Your task to perform on an android device: turn off notifications settings in the gmail app Image 0: 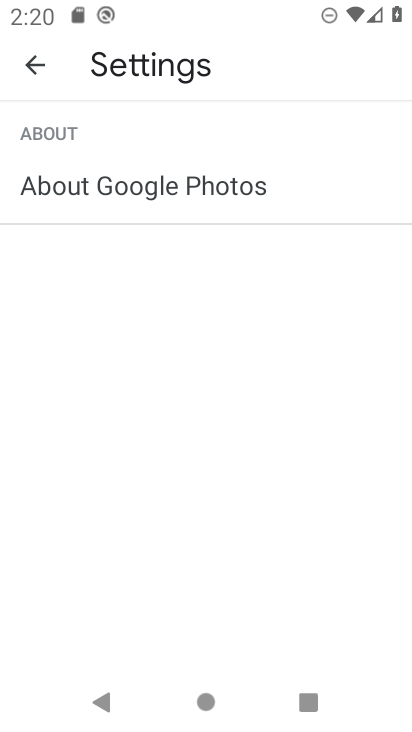
Step 0: press back button
Your task to perform on an android device: turn off notifications settings in the gmail app Image 1: 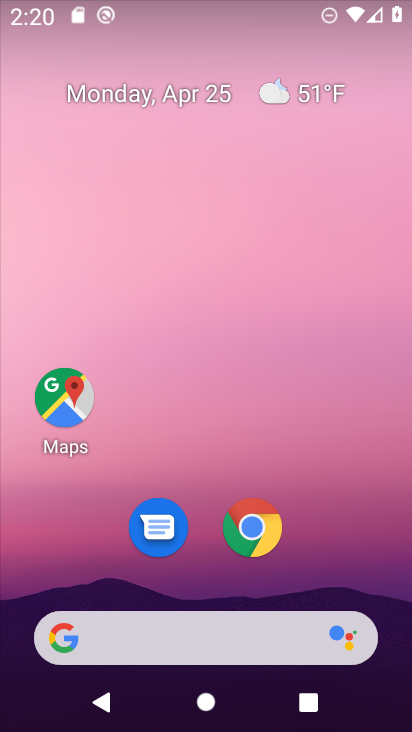
Step 1: drag from (323, 478) to (171, 2)
Your task to perform on an android device: turn off notifications settings in the gmail app Image 2: 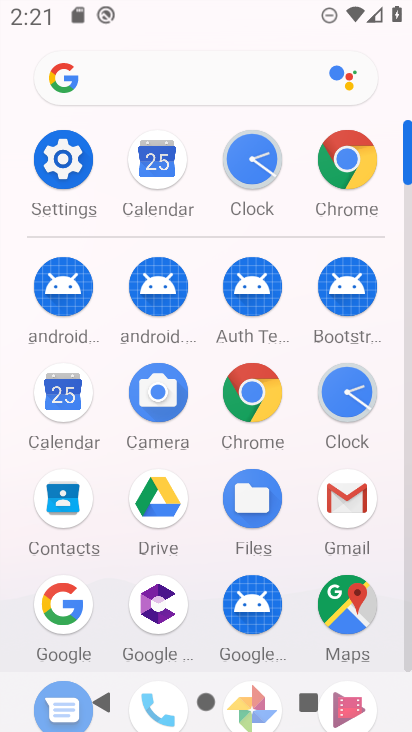
Step 2: drag from (13, 533) to (15, 296)
Your task to perform on an android device: turn off notifications settings in the gmail app Image 3: 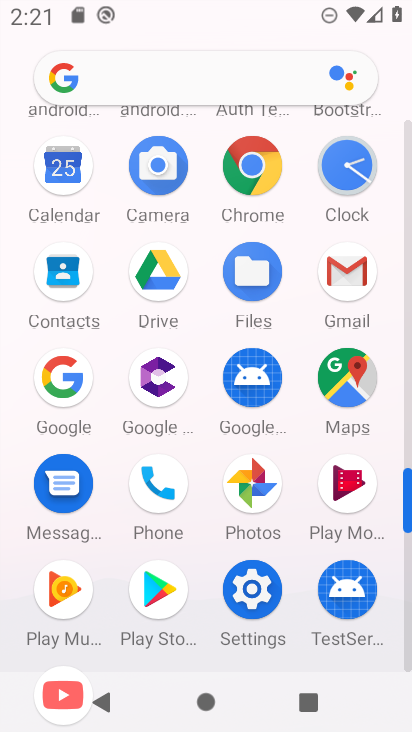
Step 3: click (348, 271)
Your task to perform on an android device: turn off notifications settings in the gmail app Image 4: 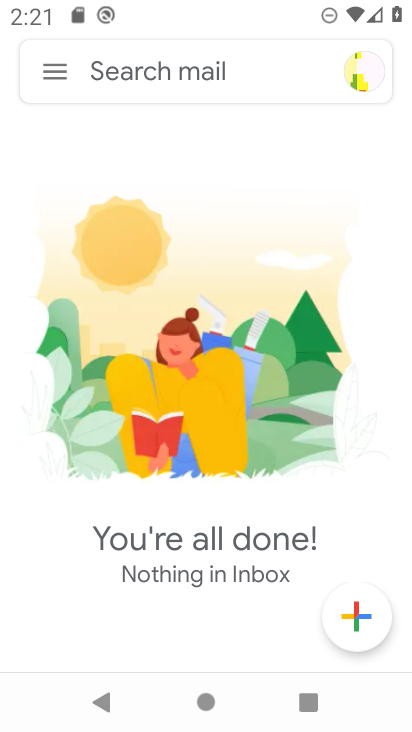
Step 4: click (55, 72)
Your task to perform on an android device: turn off notifications settings in the gmail app Image 5: 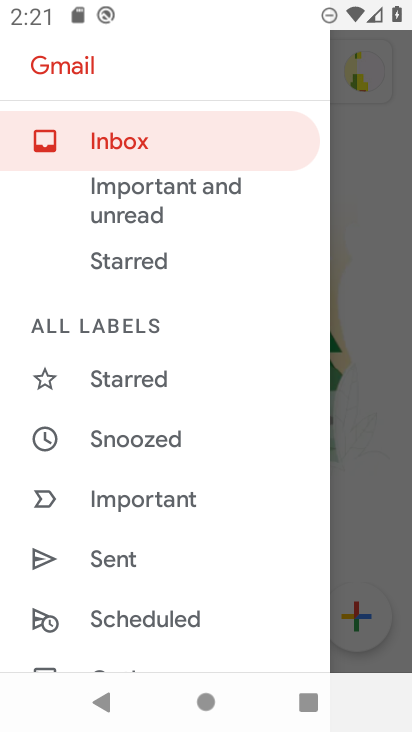
Step 5: drag from (205, 548) to (193, 114)
Your task to perform on an android device: turn off notifications settings in the gmail app Image 6: 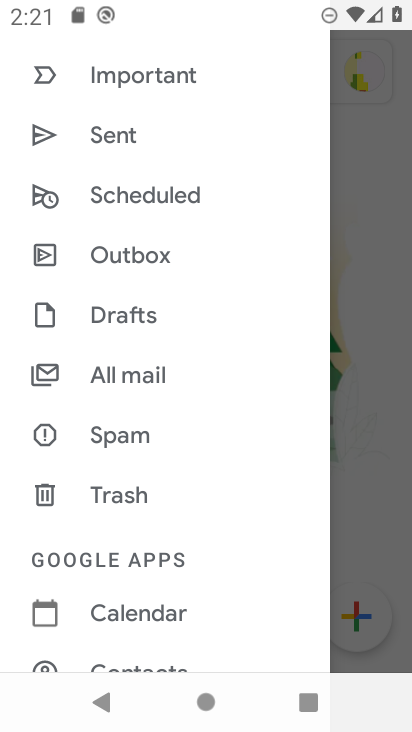
Step 6: drag from (179, 569) to (193, 115)
Your task to perform on an android device: turn off notifications settings in the gmail app Image 7: 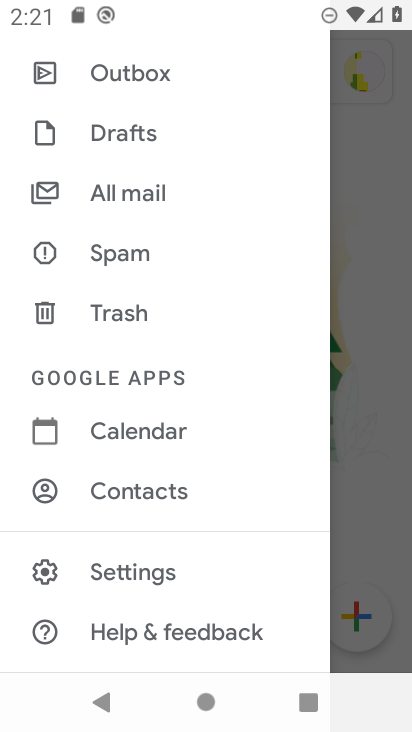
Step 7: drag from (181, 474) to (186, 110)
Your task to perform on an android device: turn off notifications settings in the gmail app Image 8: 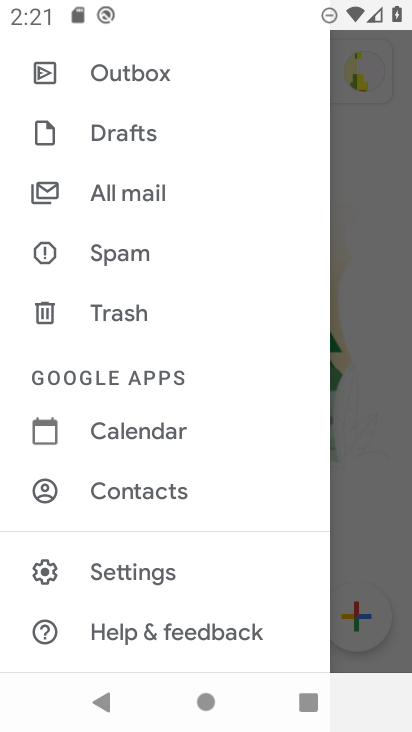
Step 8: click (134, 566)
Your task to perform on an android device: turn off notifications settings in the gmail app Image 9: 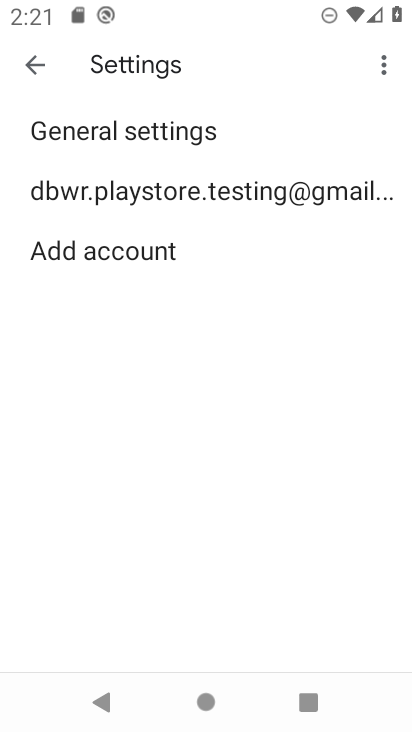
Step 9: click (154, 189)
Your task to perform on an android device: turn off notifications settings in the gmail app Image 10: 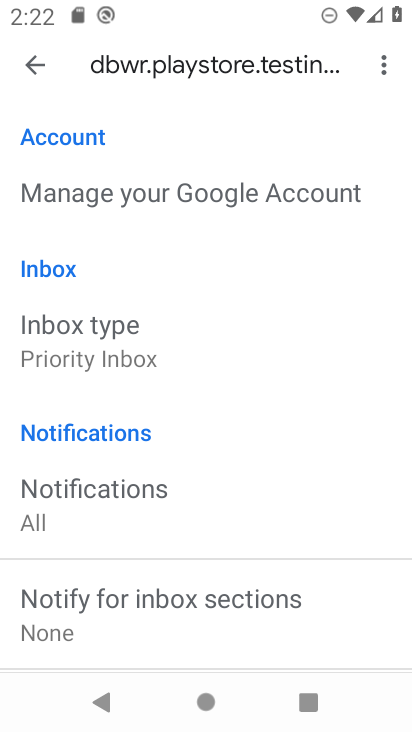
Step 10: drag from (172, 560) to (210, 190)
Your task to perform on an android device: turn off notifications settings in the gmail app Image 11: 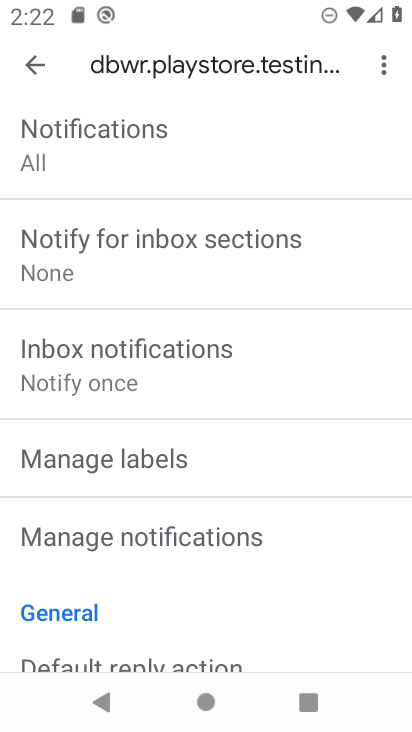
Step 11: click (202, 539)
Your task to perform on an android device: turn off notifications settings in the gmail app Image 12: 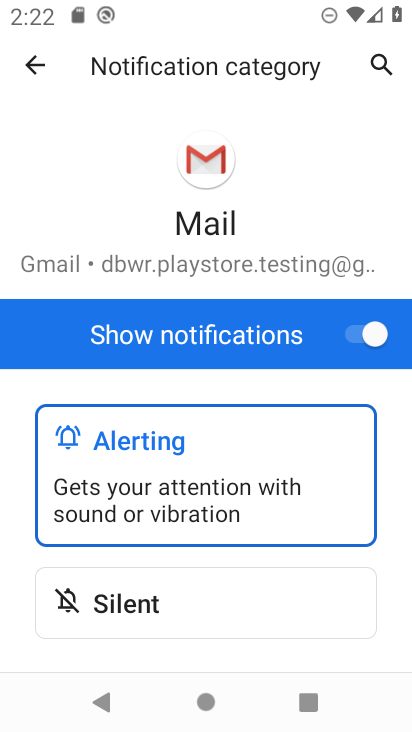
Step 12: click (353, 332)
Your task to perform on an android device: turn off notifications settings in the gmail app Image 13: 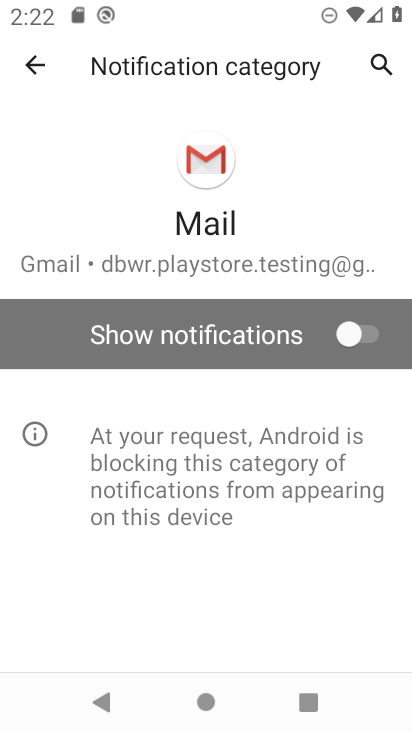
Step 13: task complete